Your task to perform on an android device: Open notification settings Image 0: 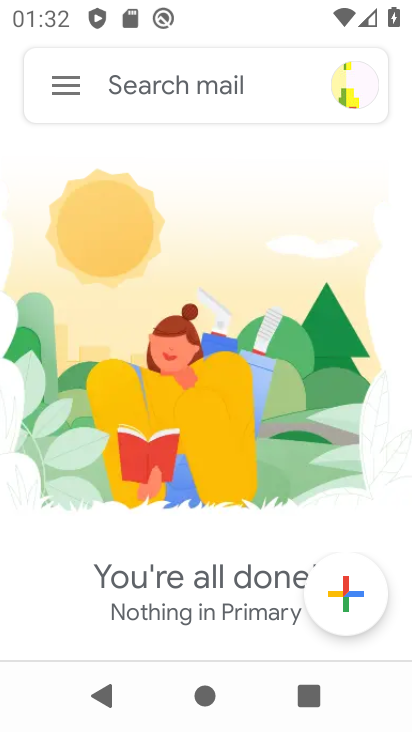
Step 0: press home button
Your task to perform on an android device: Open notification settings Image 1: 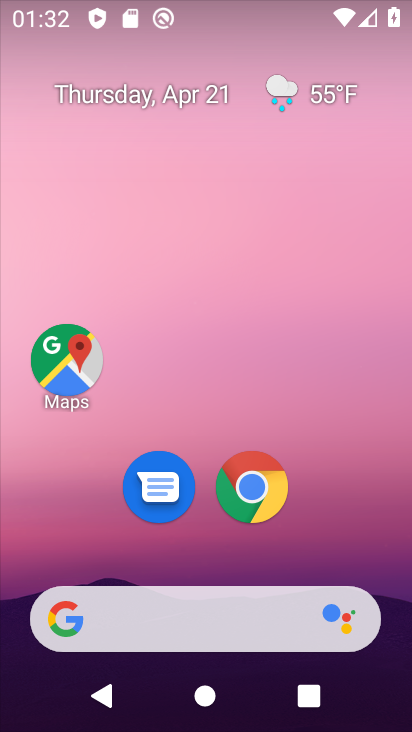
Step 1: drag from (302, 540) to (325, 210)
Your task to perform on an android device: Open notification settings Image 2: 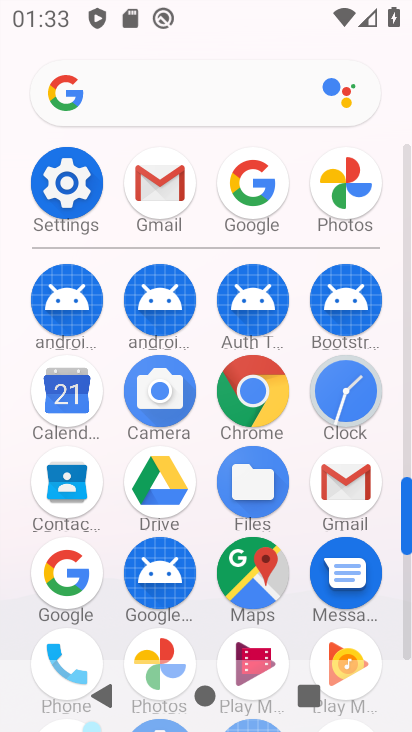
Step 2: click (66, 185)
Your task to perform on an android device: Open notification settings Image 3: 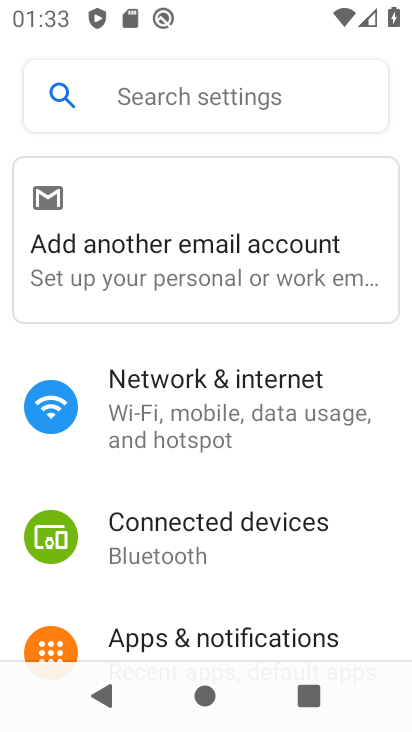
Step 3: drag from (183, 623) to (223, 476)
Your task to perform on an android device: Open notification settings Image 4: 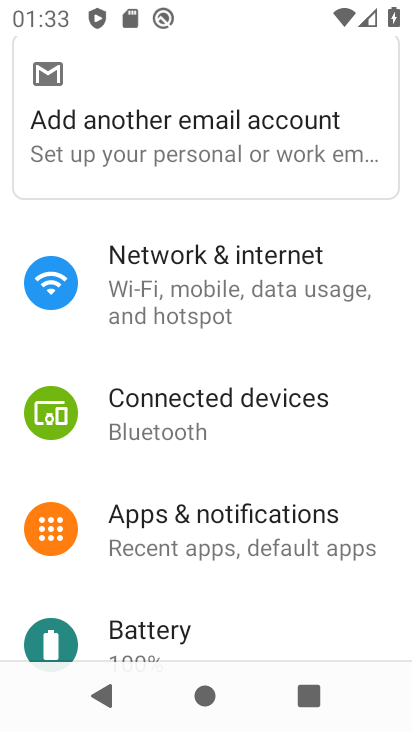
Step 4: click (180, 548)
Your task to perform on an android device: Open notification settings Image 5: 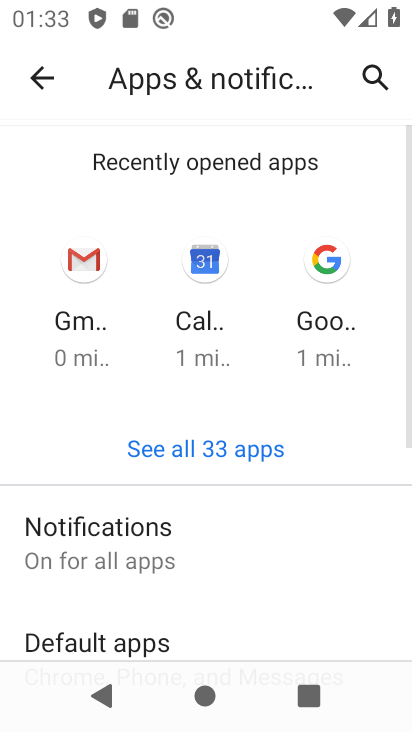
Step 5: click (181, 543)
Your task to perform on an android device: Open notification settings Image 6: 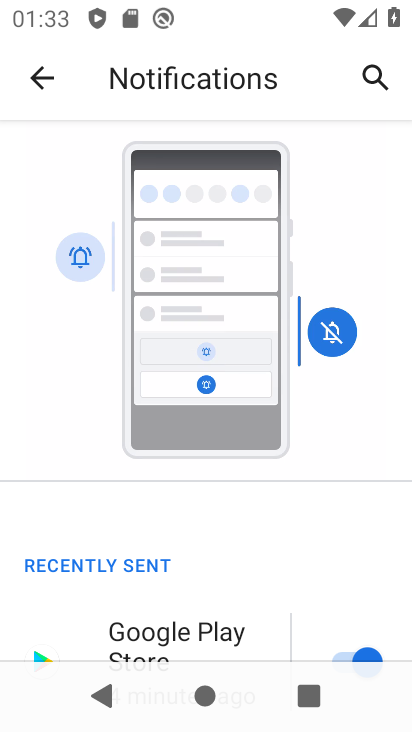
Step 6: task complete